Your task to perform on an android device: Set the phone to "Do not disturb". Image 0: 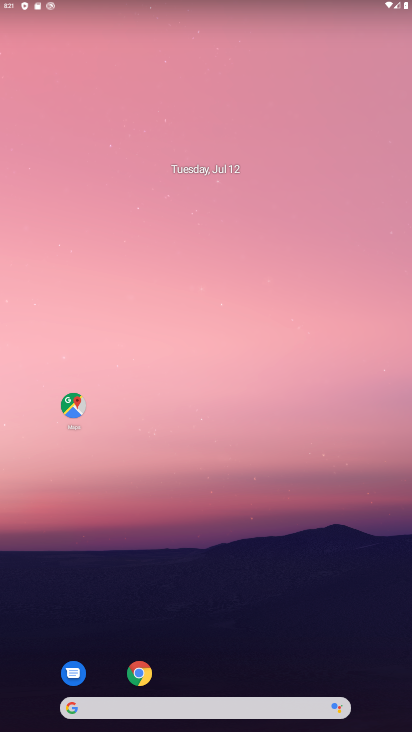
Step 0: drag from (260, 591) to (317, 184)
Your task to perform on an android device: Set the phone to "Do not disturb". Image 1: 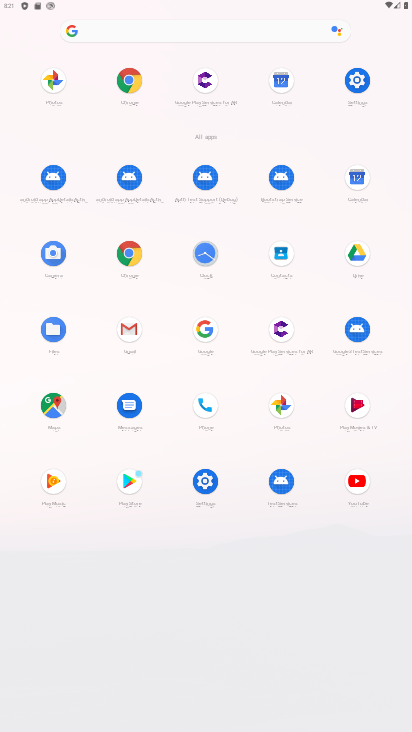
Step 1: drag from (235, 2) to (144, 396)
Your task to perform on an android device: Set the phone to "Do not disturb". Image 2: 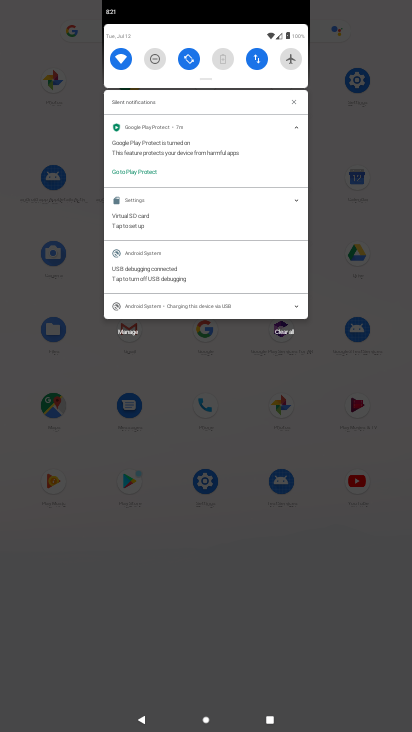
Step 2: click (156, 60)
Your task to perform on an android device: Set the phone to "Do not disturb". Image 3: 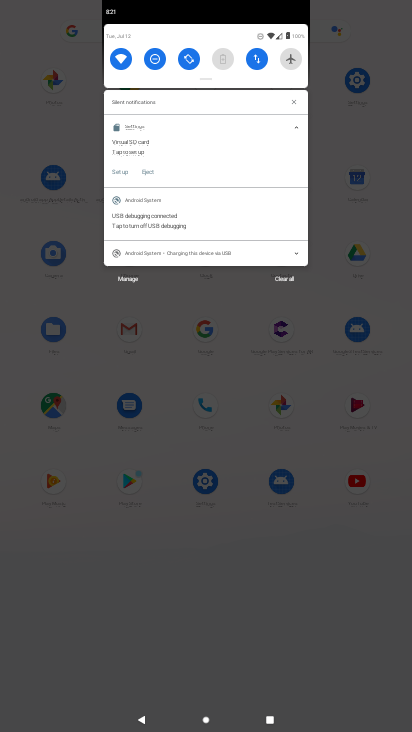
Step 3: task complete